Your task to perform on an android device: Set the phone to "Do not disturb". Image 0: 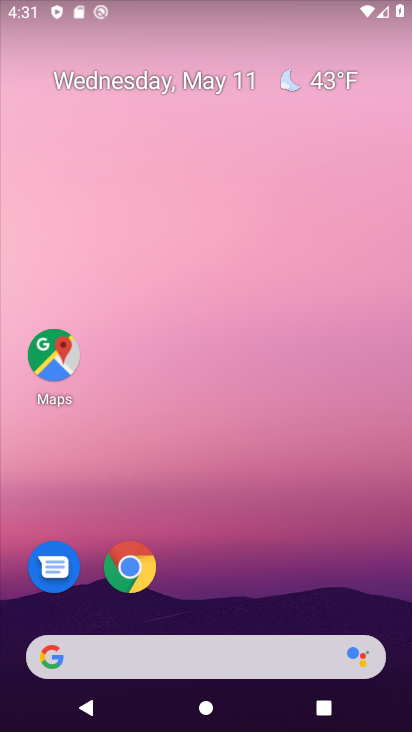
Step 0: drag from (260, 293) to (268, 235)
Your task to perform on an android device: Set the phone to "Do not disturb". Image 1: 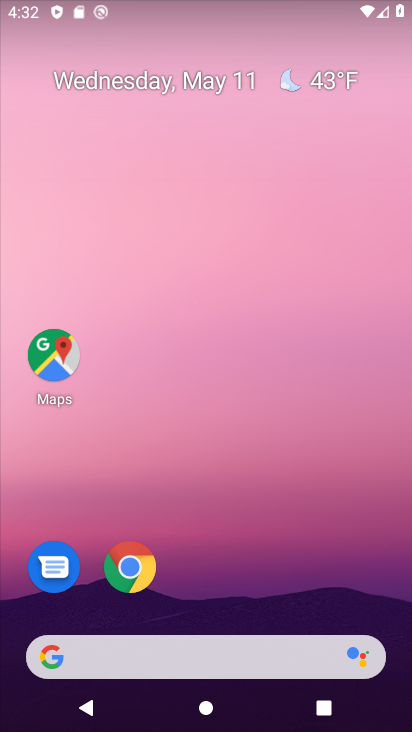
Step 1: drag from (315, 608) to (386, 126)
Your task to perform on an android device: Set the phone to "Do not disturb". Image 2: 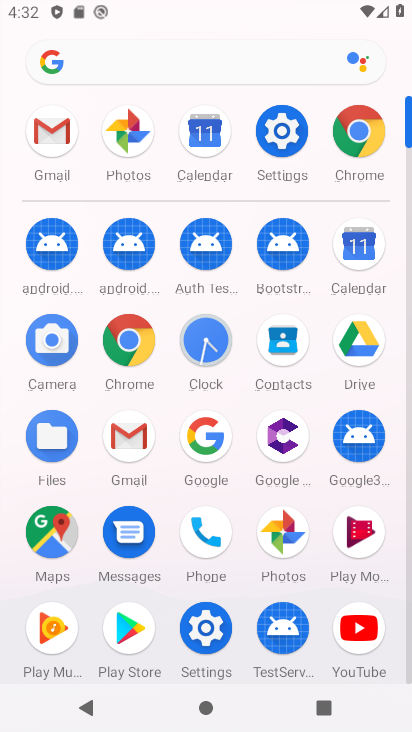
Step 2: click (213, 628)
Your task to perform on an android device: Set the phone to "Do not disturb". Image 3: 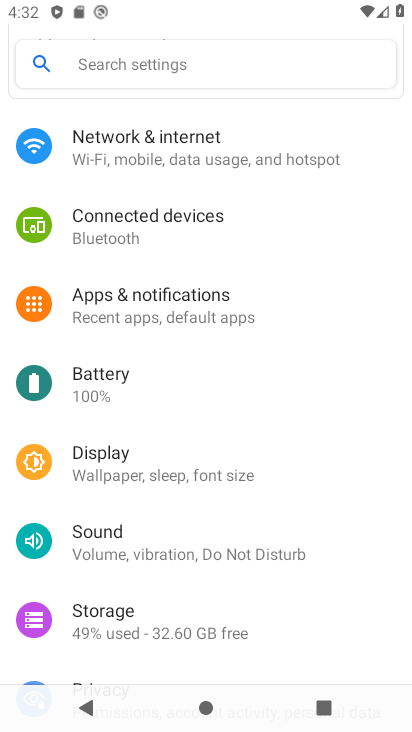
Step 3: click (210, 547)
Your task to perform on an android device: Set the phone to "Do not disturb". Image 4: 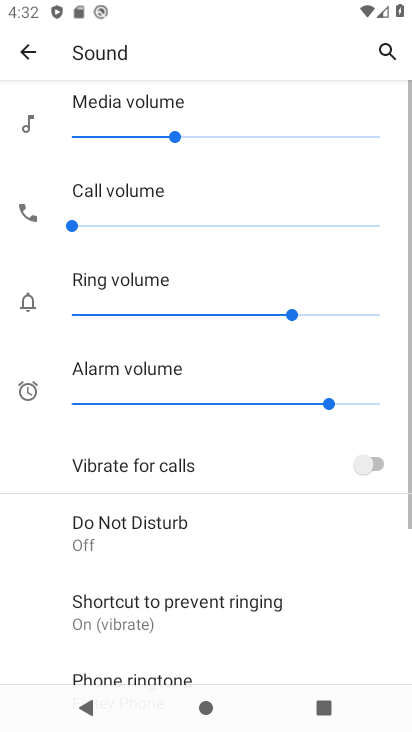
Step 4: drag from (210, 547) to (218, 170)
Your task to perform on an android device: Set the phone to "Do not disturb". Image 5: 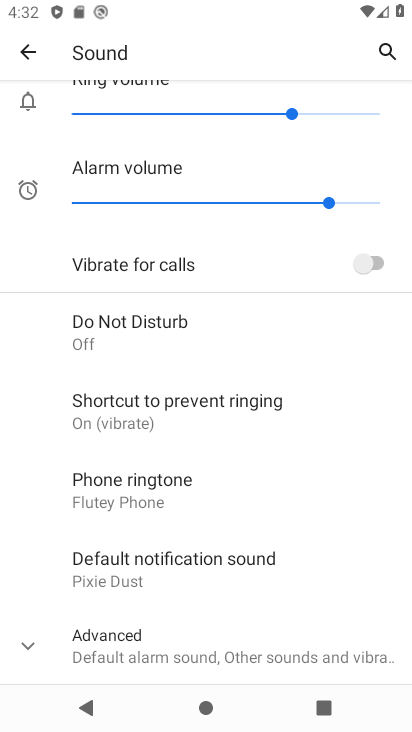
Step 5: click (144, 312)
Your task to perform on an android device: Set the phone to "Do not disturb". Image 6: 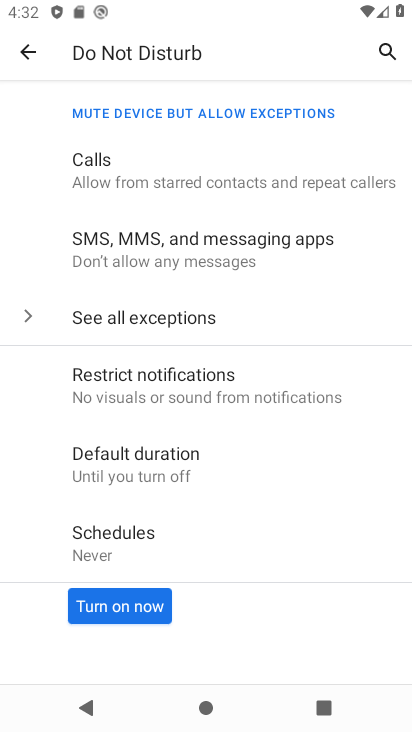
Step 6: click (95, 607)
Your task to perform on an android device: Set the phone to "Do not disturb". Image 7: 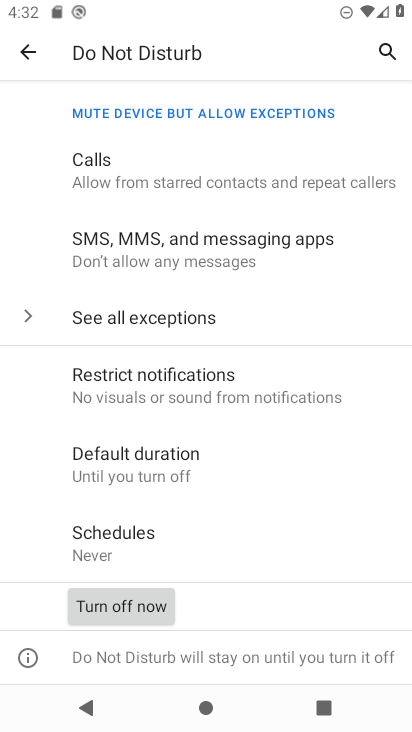
Step 7: task complete